Your task to perform on an android device: What's the weather going to be tomorrow? Image 0: 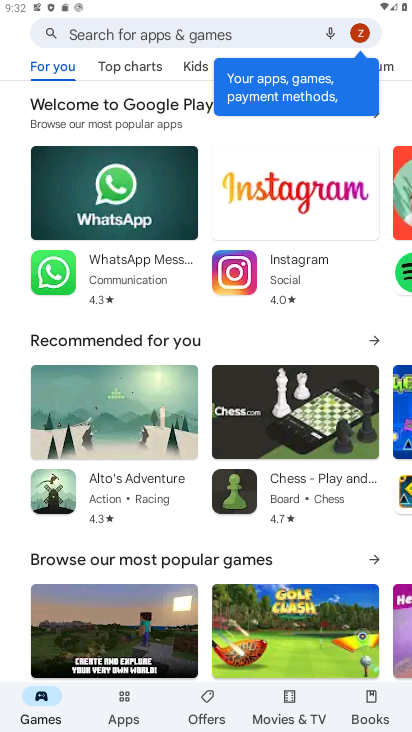
Step 0: press home button
Your task to perform on an android device: What's the weather going to be tomorrow? Image 1: 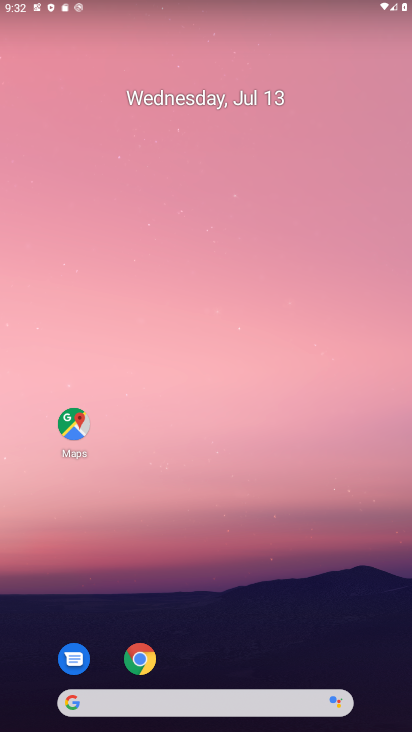
Step 1: drag from (227, 701) to (249, 142)
Your task to perform on an android device: What's the weather going to be tomorrow? Image 2: 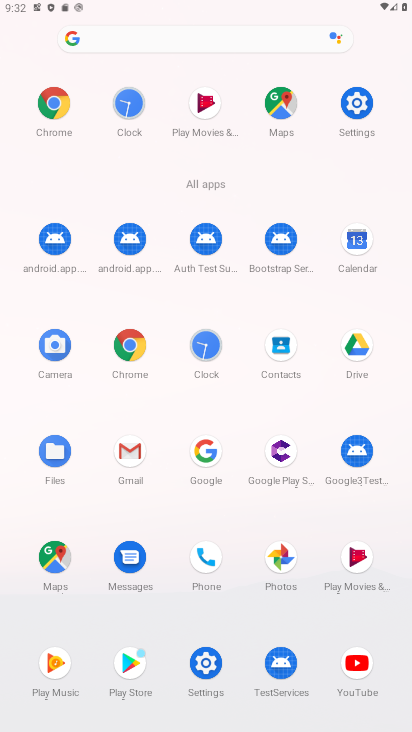
Step 2: click (204, 468)
Your task to perform on an android device: What's the weather going to be tomorrow? Image 3: 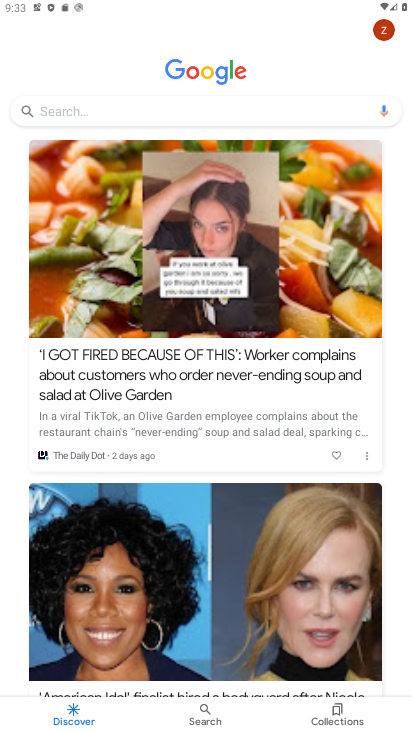
Step 3: click (194, 113)
Your task to perform on an android device: What's the weather going to be tomorrow? Image 4: 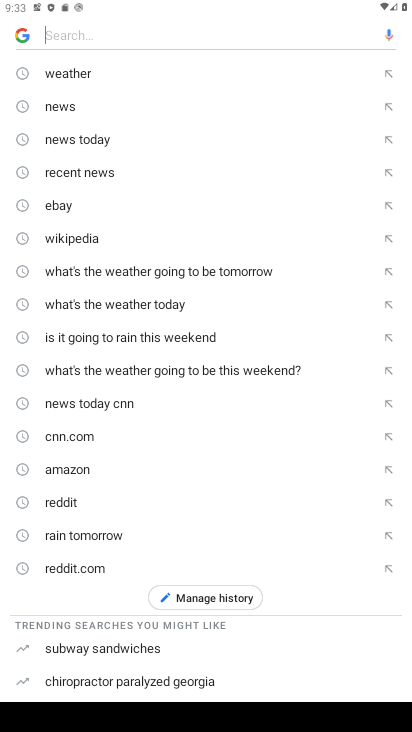
Step 4: type "weather tmorrow"
Your task to perform on an android device: What's the weather going to be tomorrow? Image 5: 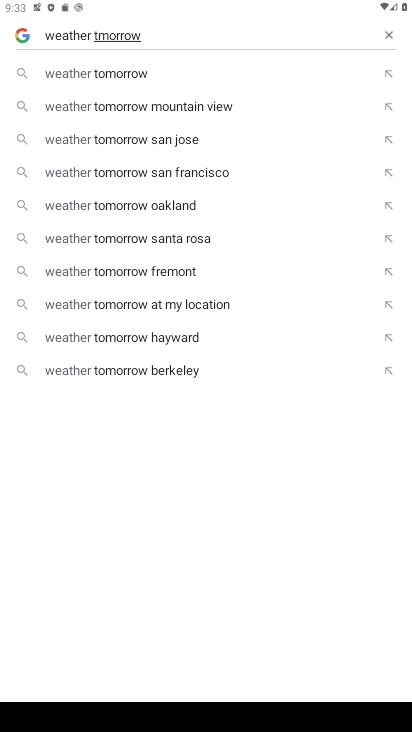
Step 5: click (143, 78)
Your task to perform on an android device: What's the weather going to be tomorrow? Image 6: 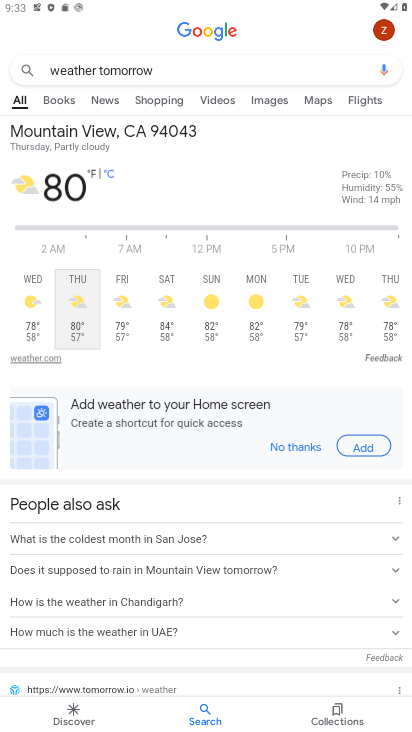
Step 6: task complete